Your task to perform on an android device: turn on showing notifications on the lock screen Image 0: 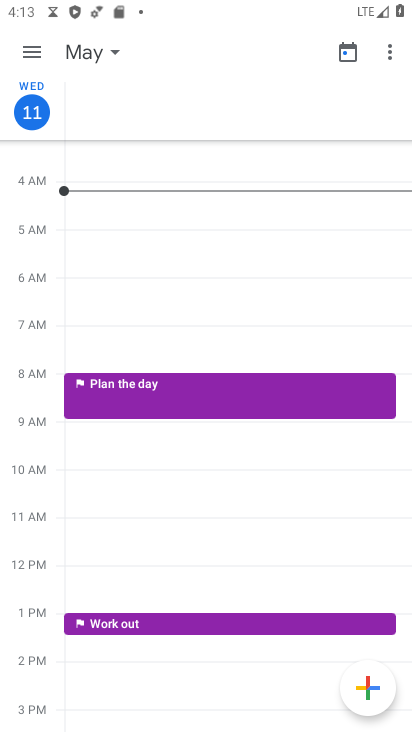
Step 0: press back button
Your task to perform on an android device: turn on showing notifications on the lock screen Image 1: 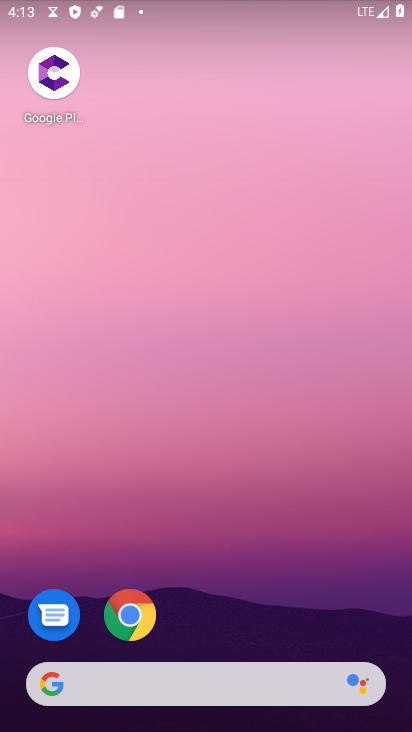
Step 1: drag from (232, 584) to (225, 35)
Your task to perform on an android device: turn on showing notifications on the lock screen Image 2: 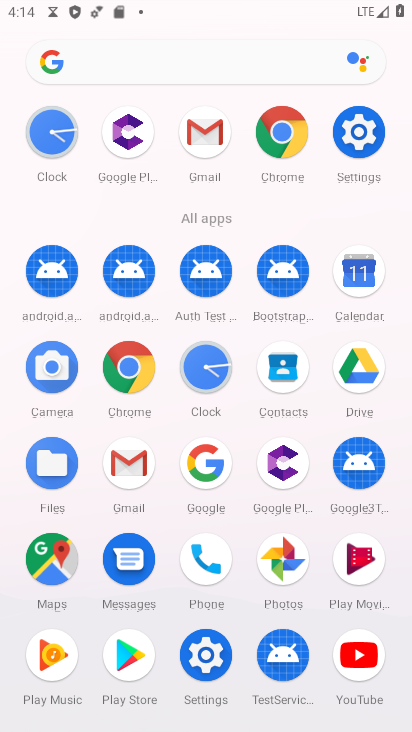
Step 2: drag from (9, 513) to (7, 252)
Your task to perform on an android device: turn on showing notifications on the lock screen Image 3: 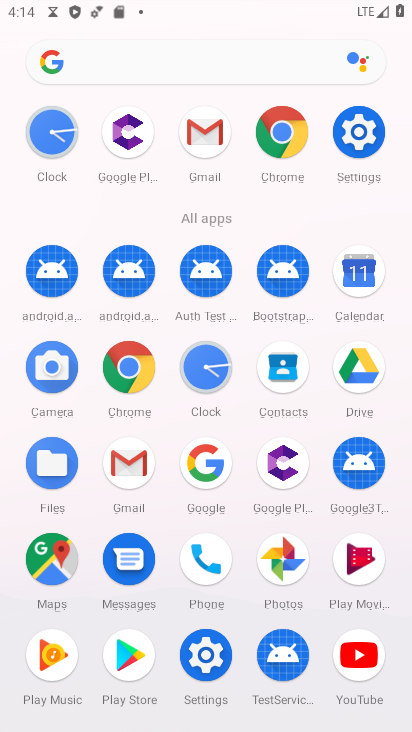
Step 3: click (205, 654)
Your task to perform on an android device: turn on showing notifications on the lock screen Image 4: 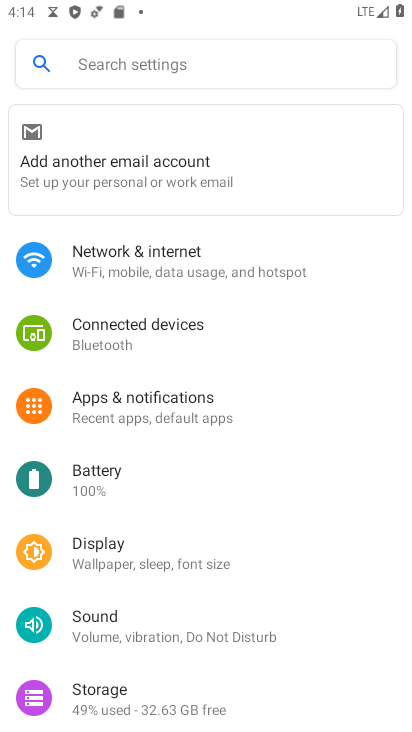
Step 4: drag from (4, 588) to (348, 658)
Your task to perform on an android device: turn on showing notifications on the lock screen Image 5: 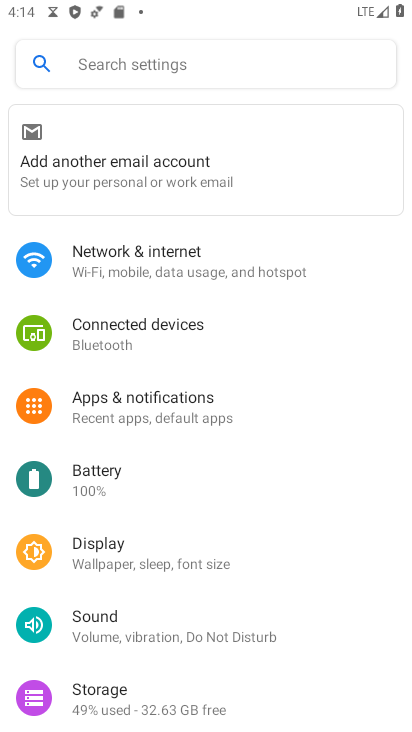
Step 5: click (168, 395)
Your task to perform on an android device: turn on showing notifications on the lock screen Image 6: 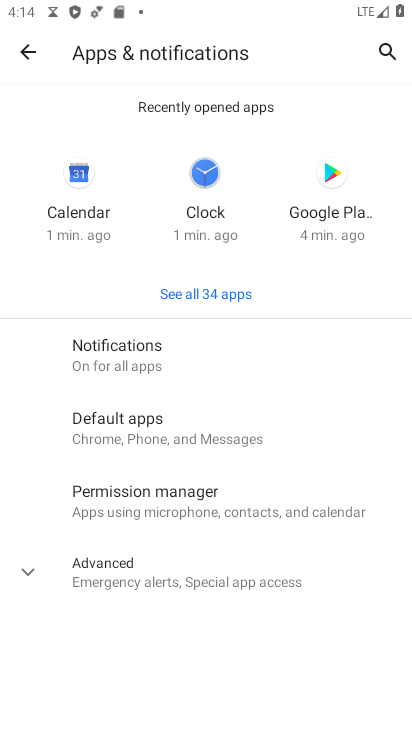
Step 6: click (166, 359)
Your task to perform on an android device: turn on showing notifications on the lock screen Image 7: 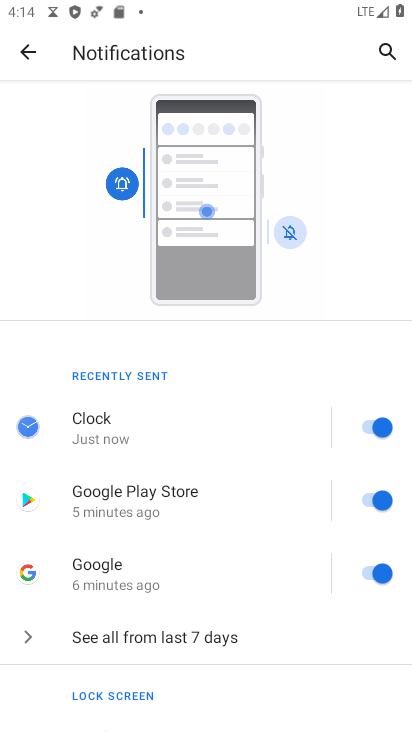
Step 7: drag from (228, 581) to (227, 154)
Your task to perform on an android device: turn on showing notifications on the lock screen Image 8: 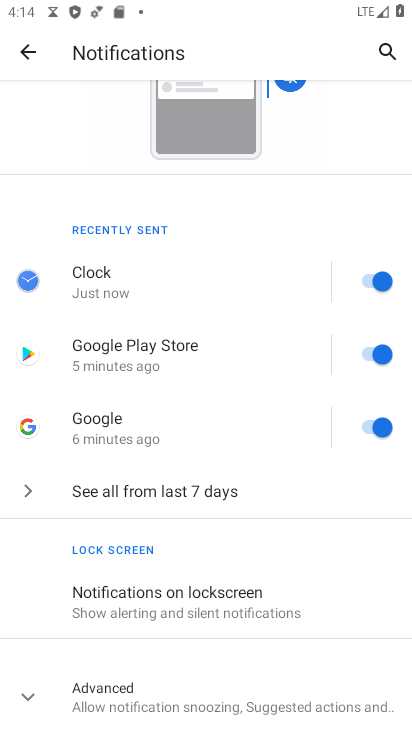
Step 8: click (33, 701)
Your task to perform on an android device: turn on showing notifications on the lock screen Image 9: 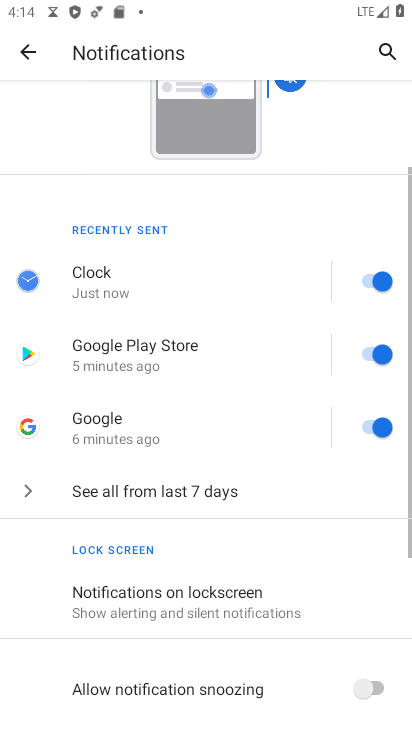
Step 9: drag from (192, 591) to (208, 195)
Your task to perform on an android device: turn on showing notifications on the lock screen Image 10: 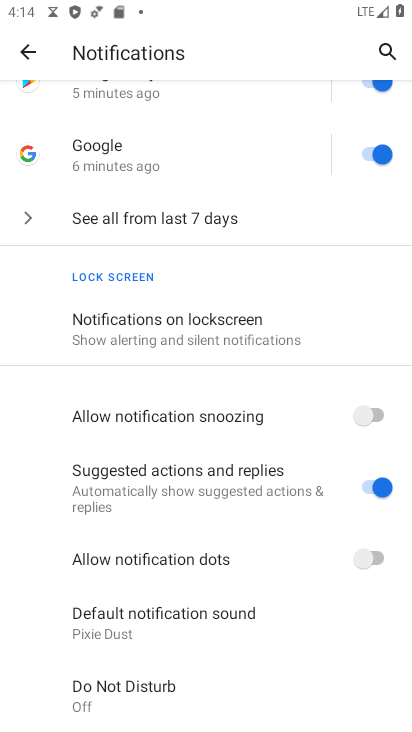
Step 10: click (189, 321)
Your task to perform on an android device: turn on showing notifications on the lock screen Image 11: 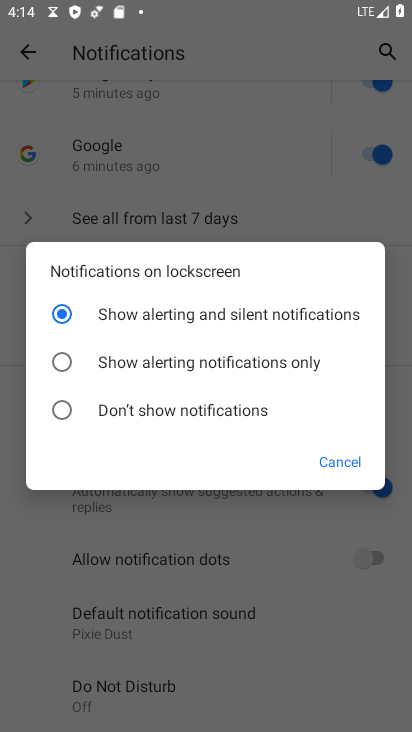
Step 11: click (189, 312)
Your task to perform on an android device: turn on showing notifications on the lock screen Image 12: 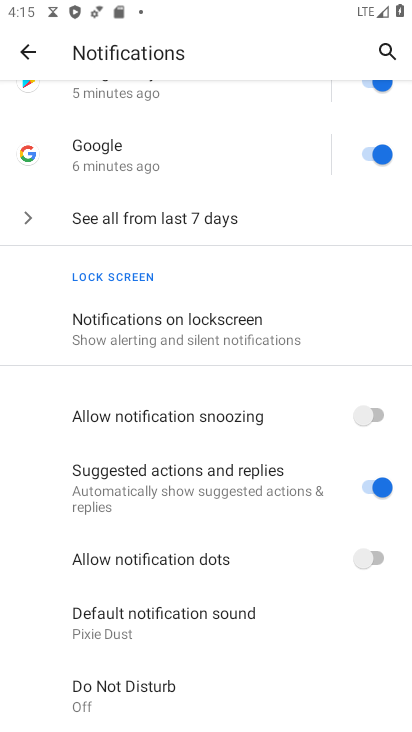
Step 12: task complete